Your task to perform on an android device: Open Android settings Image 0: 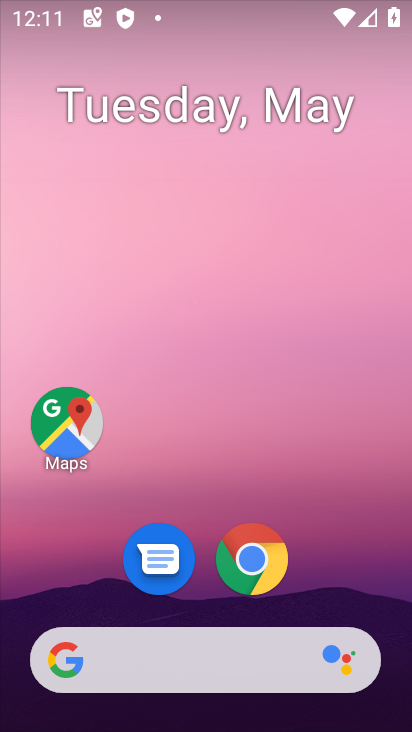
Step 0: drag from (364, 576) to (340, 196)
Your task to perform on an android device: Open Android settings Image 1: 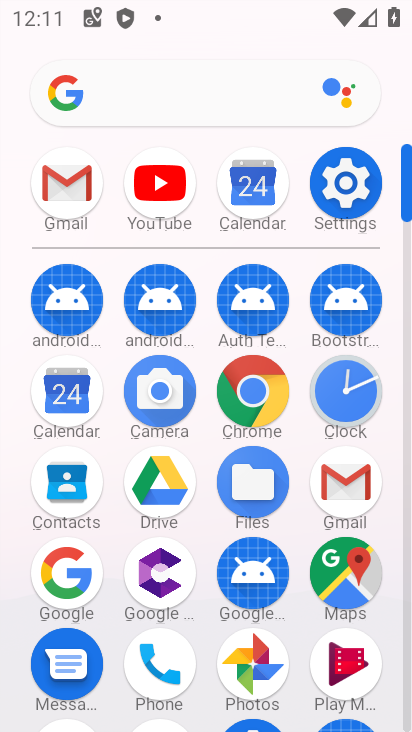
Step 1: click (361, 187)
Your task to perform on an android device: Open Android settings Image 2: 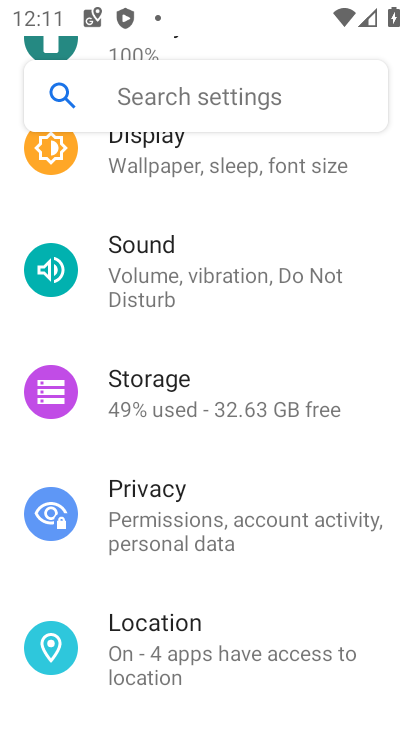
Step 2: task complete